Your task to perform on an android device: turn vacation reply on in the gmail app Image 0: 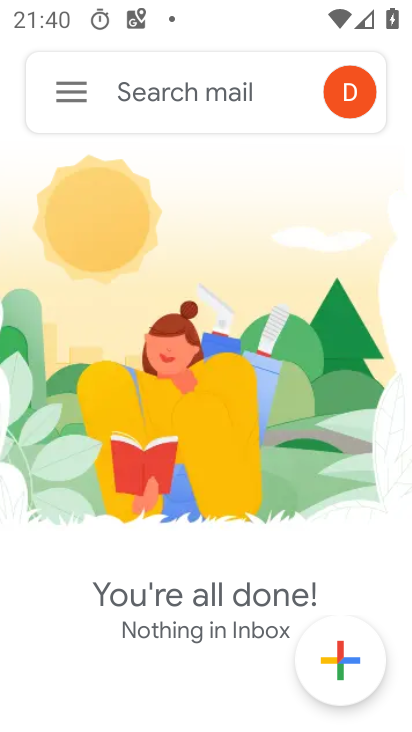
Step 0: click (74, 91)
Your task to perform on an android device: turn vacation reply on in the gmail app Image 1: 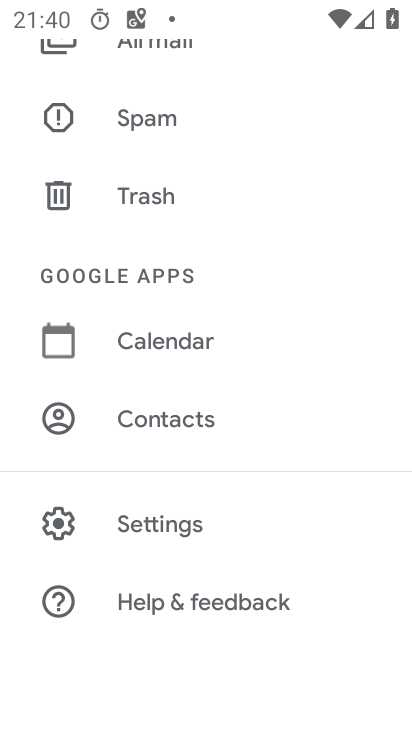
Step 1: click (161, 522)
Your task to perform on an android device: turn vacation reply on in the gmail app Image 2: 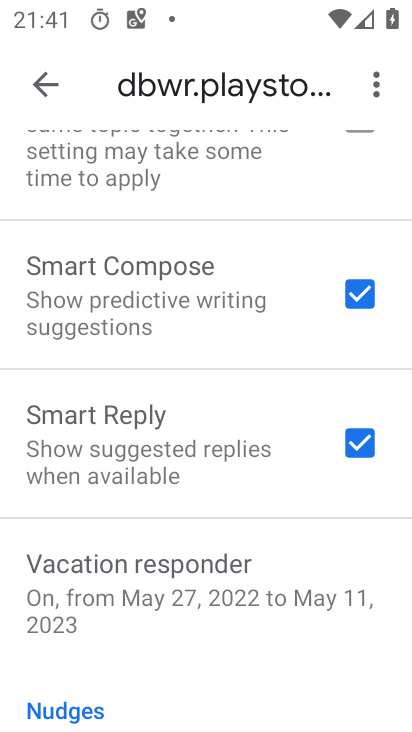
Step 2: task complete